Your task to perform on an android device: change the clock display to analog Image 0: 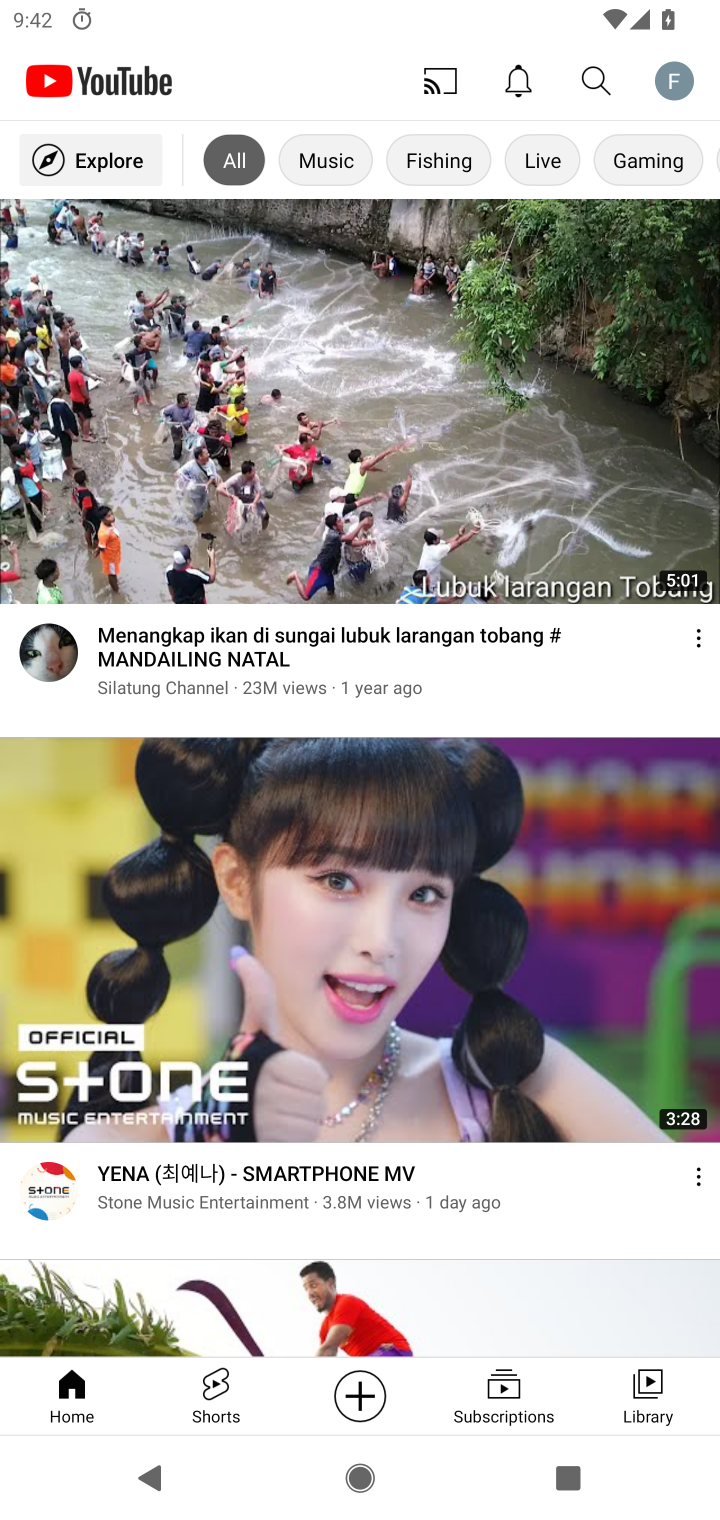
Step 0: press home button
Your task to perform on an android device: change the clock display to analog Image 1: 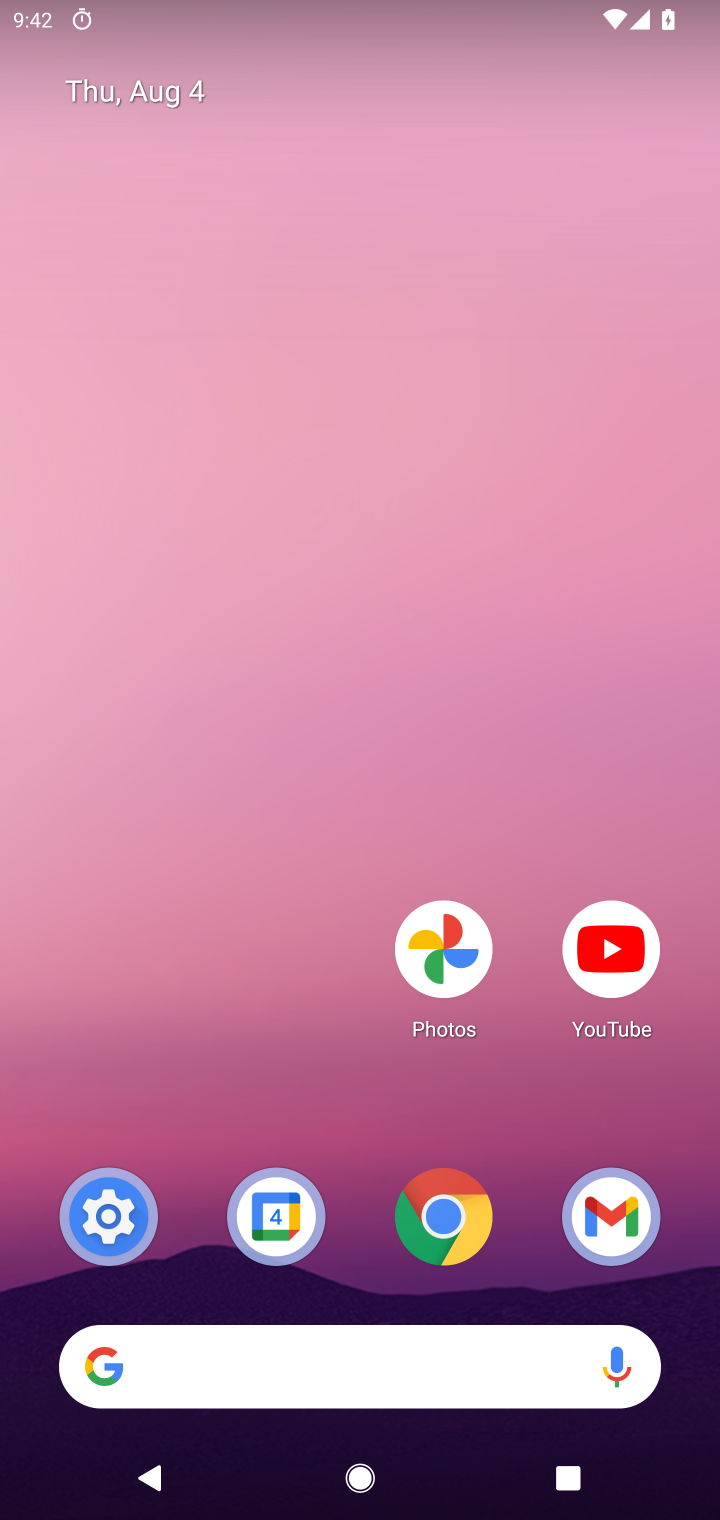
Step 1: drag from (374, 1285) to (374, 152)
Your task to perform on an android device: change the clock display to analog Image 2: 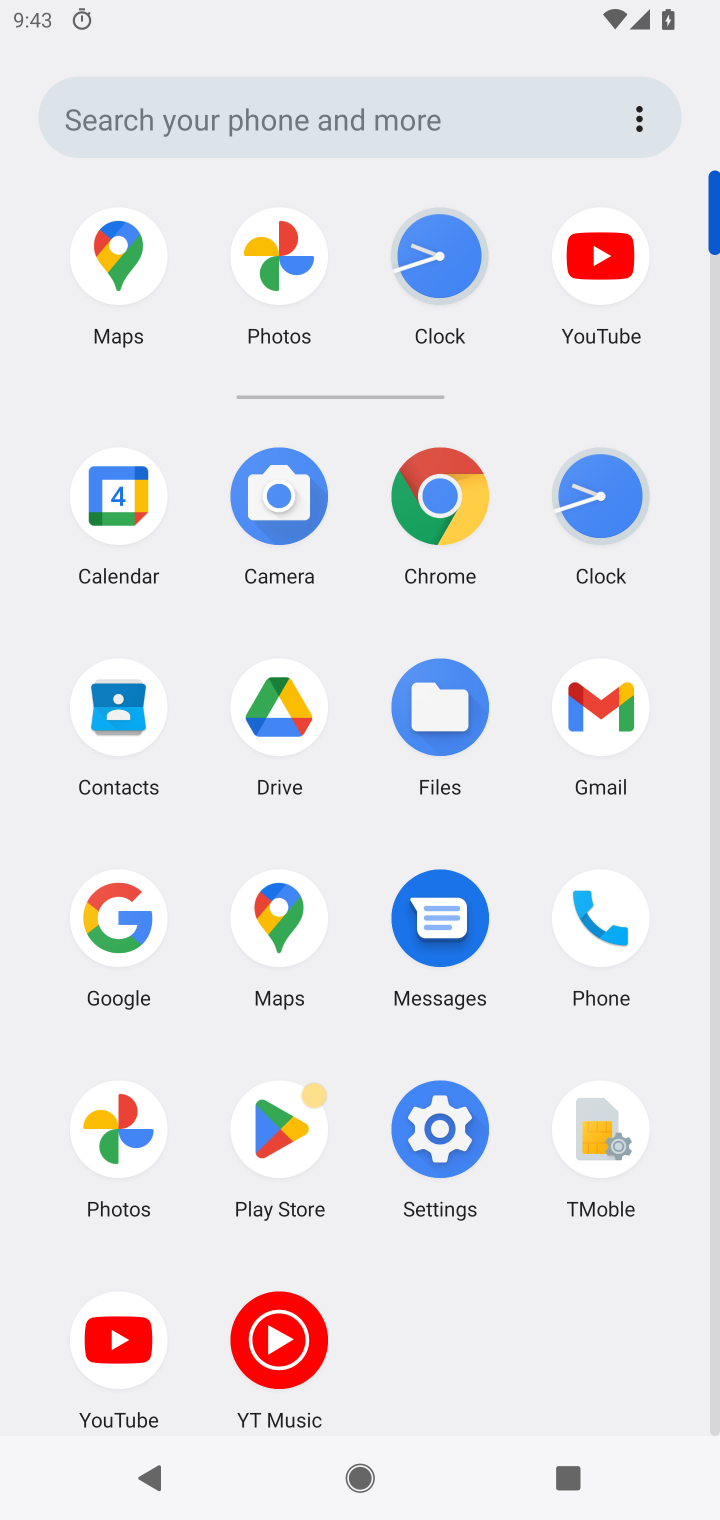
Step 2: click (608, 503)
Your task to perform on an android device: change the clock display to analog Image 3: 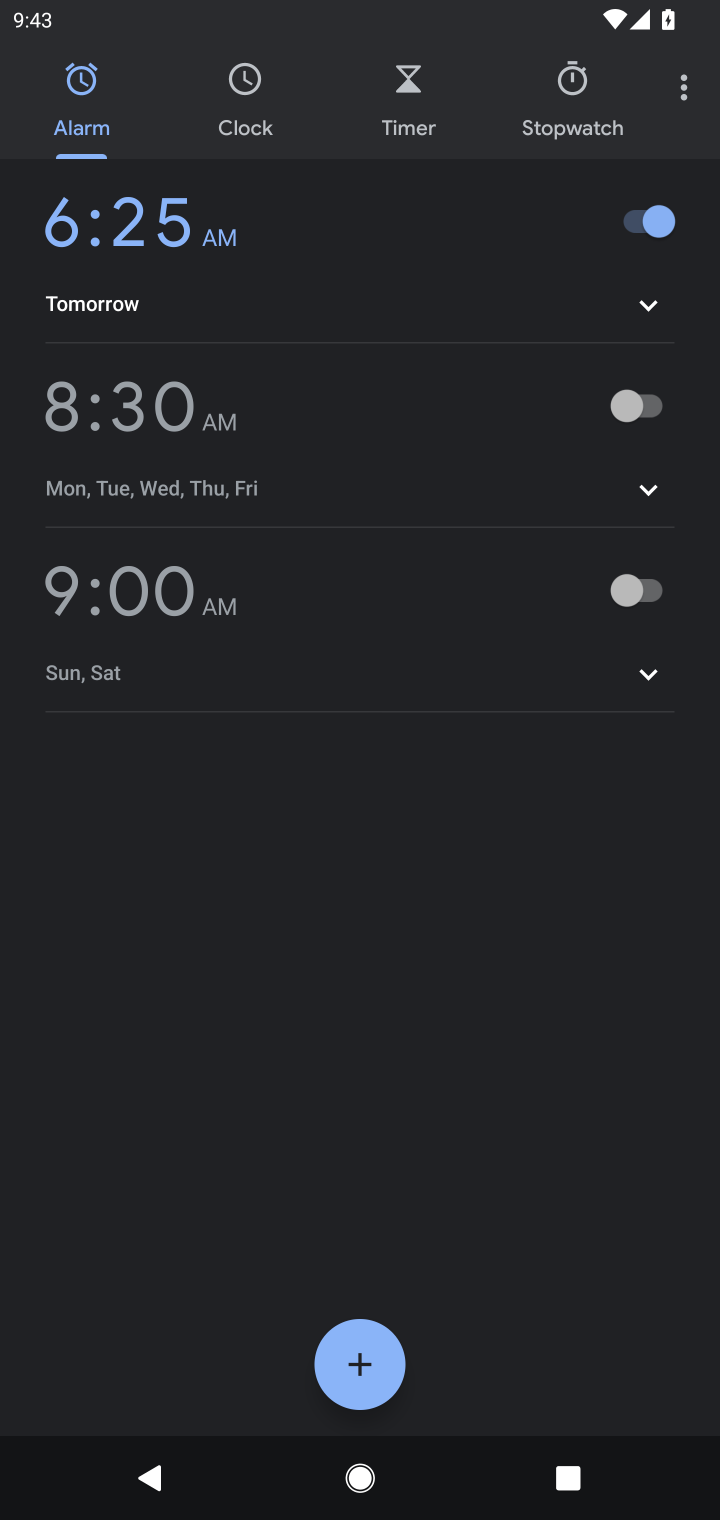
Step 3: click (685, 101)
Your task to perform on an android device: change the clock display to analog Image 4: 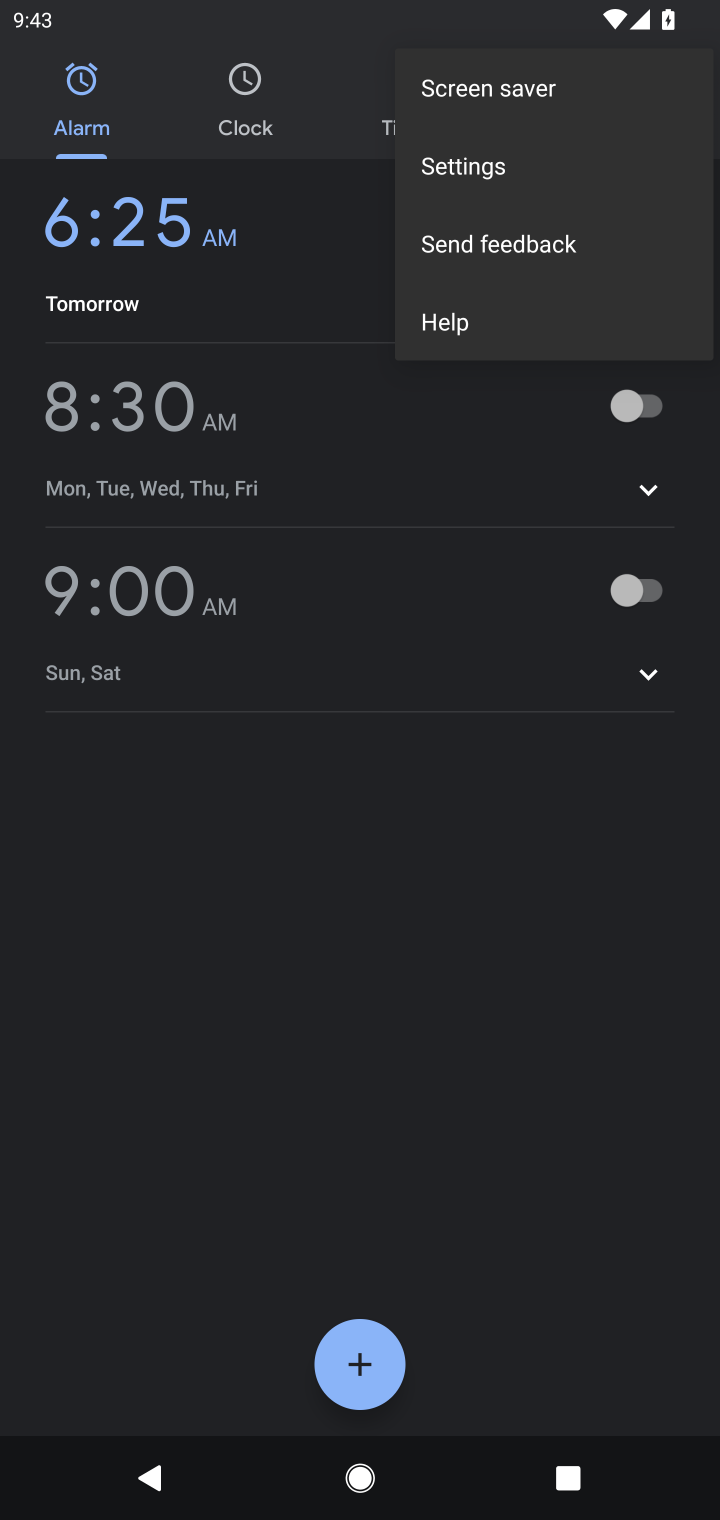
Step 4: click (450, 165)
Your task to perform on an android device: change the clock display to analog Image 5: 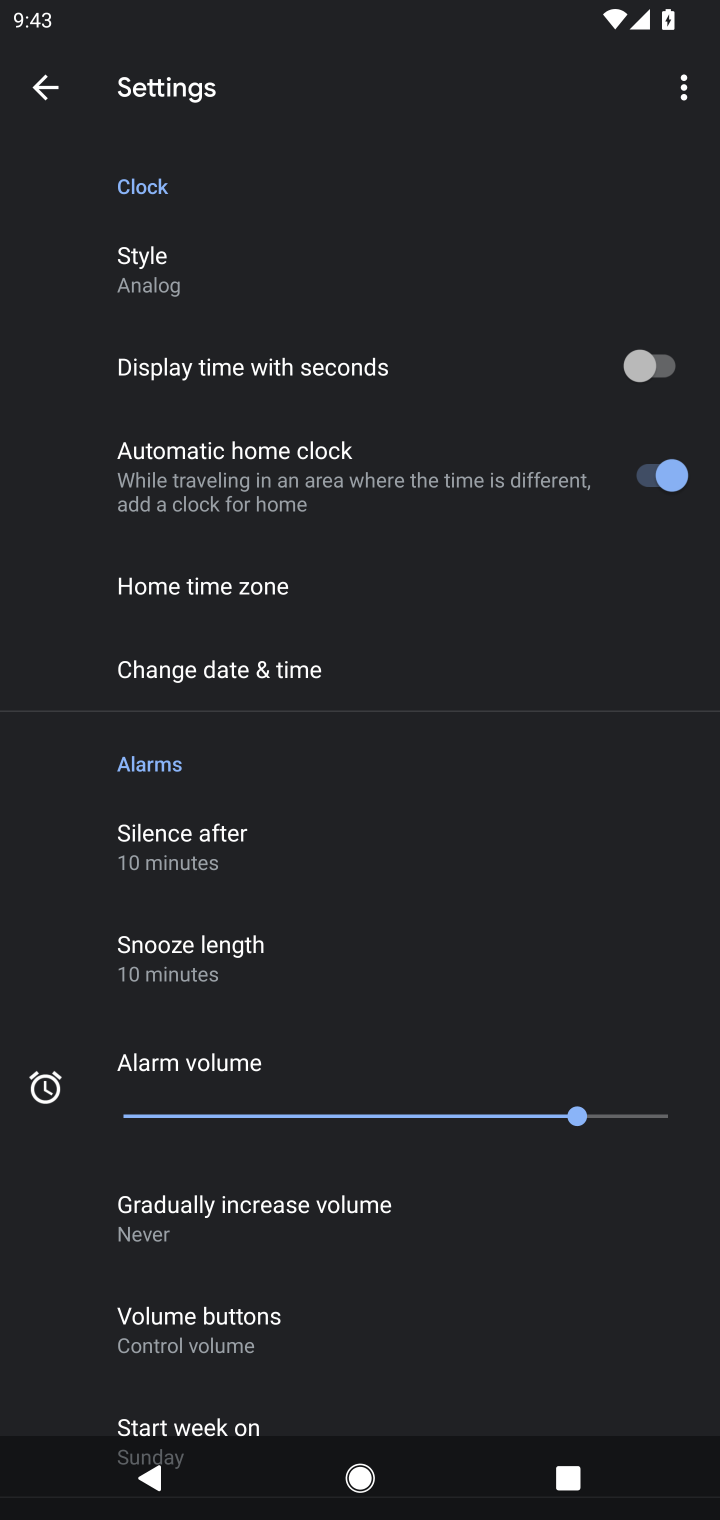
Step 5: task complete